Your task to perform on an android device: make emails show in primary in the gmail app Image 0: 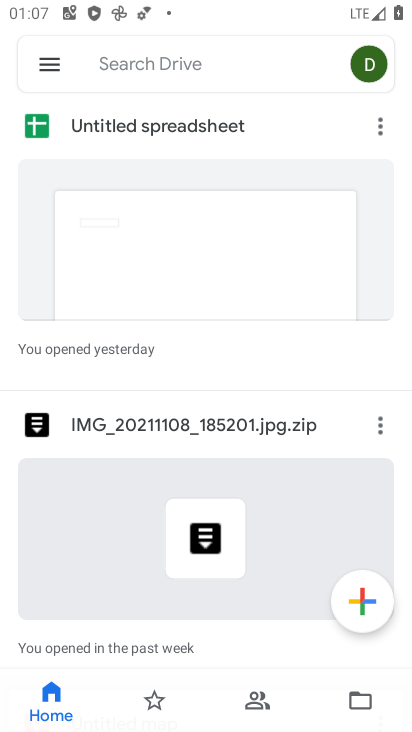
Step 0: press home button
Your task to perform on an android device: make emails show in primary in the gmail app Image 1: 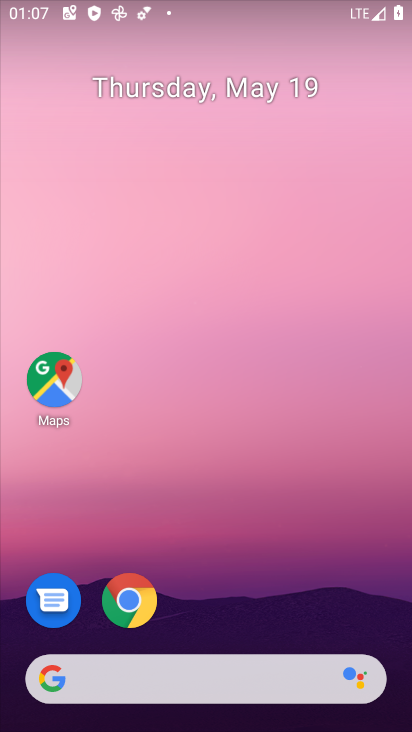
Step 1: drag from (248, 563) to (230, 98)
Your task to perform on an android device: make emails show in primary in the gmail app Image 2: 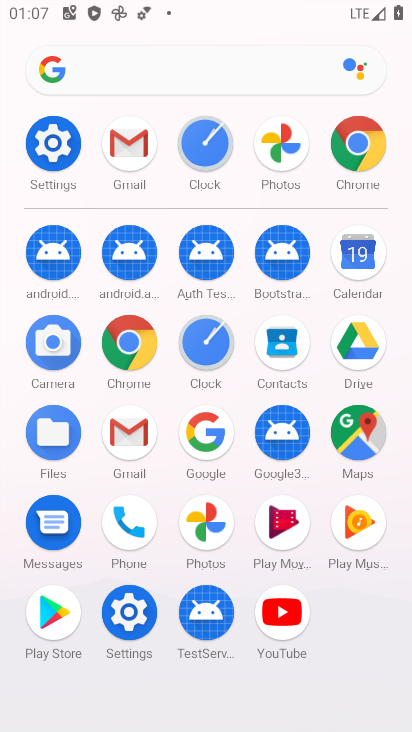
Step 2: click (122, 411)
Your task to perform on an android device: make emails show in primary in the gmail app Image 3: 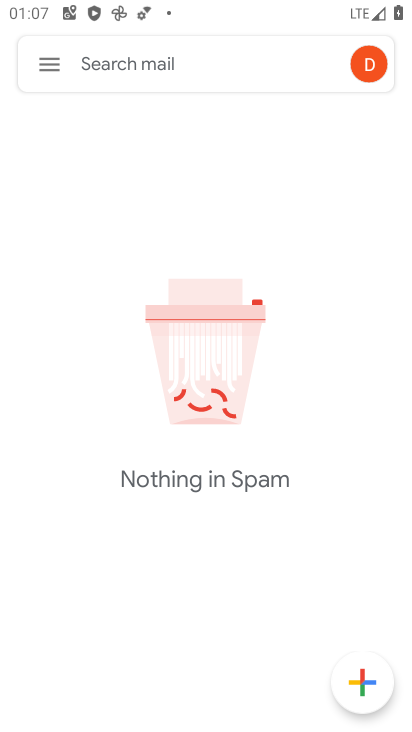
Step 3: click (52, 57)
Your task to perform on an android device: make emails show in primary in the gmail app Image 4: 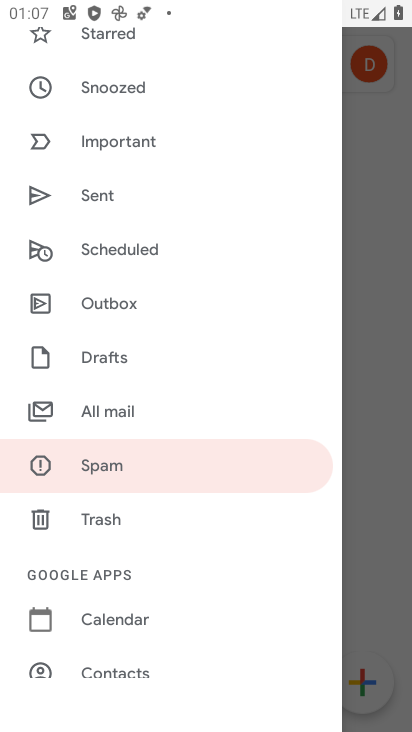
Step 4: drag from (186, 172) to (186, 676)
Your task to perform on an android device: make emails show in primary in the gmail app Image 5: 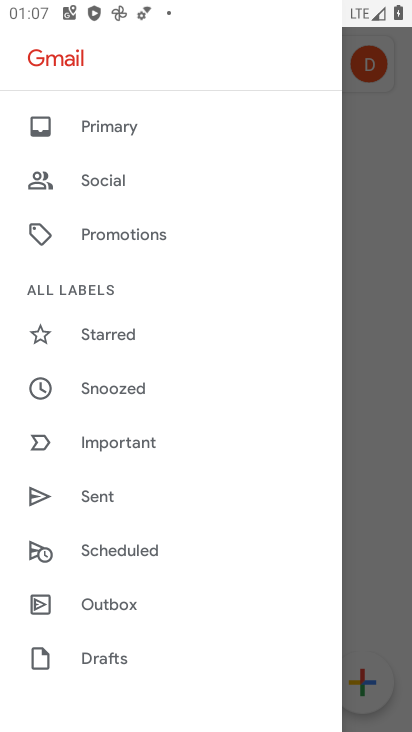
Step 5: click (107, 117)
Your task to perform on an android device: make emails show in primary in the gmail app Image 6: 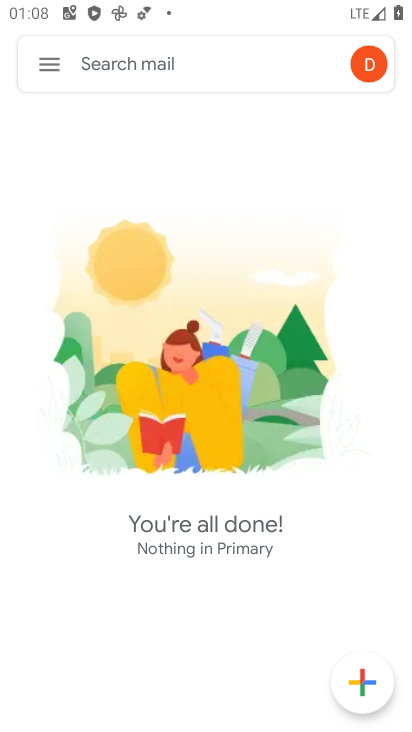
Step 6: task complete